Your task to perform on an android device: make emails show in primary in the gmail app Image 0: 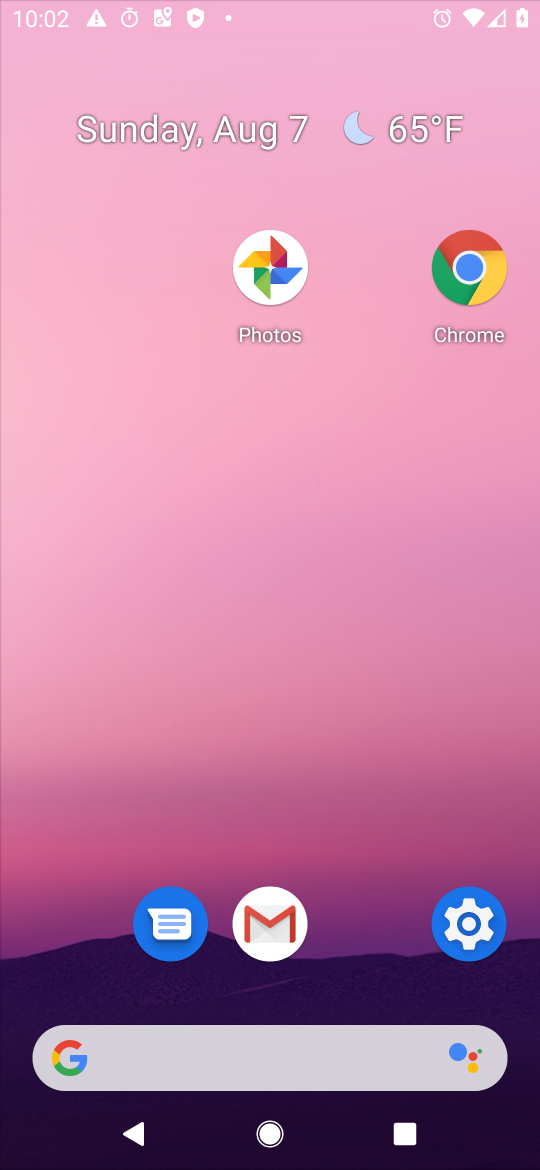
Step 0: press home button
Your task to perform on an android device: make emails show in primary in the gmail app Image 1: 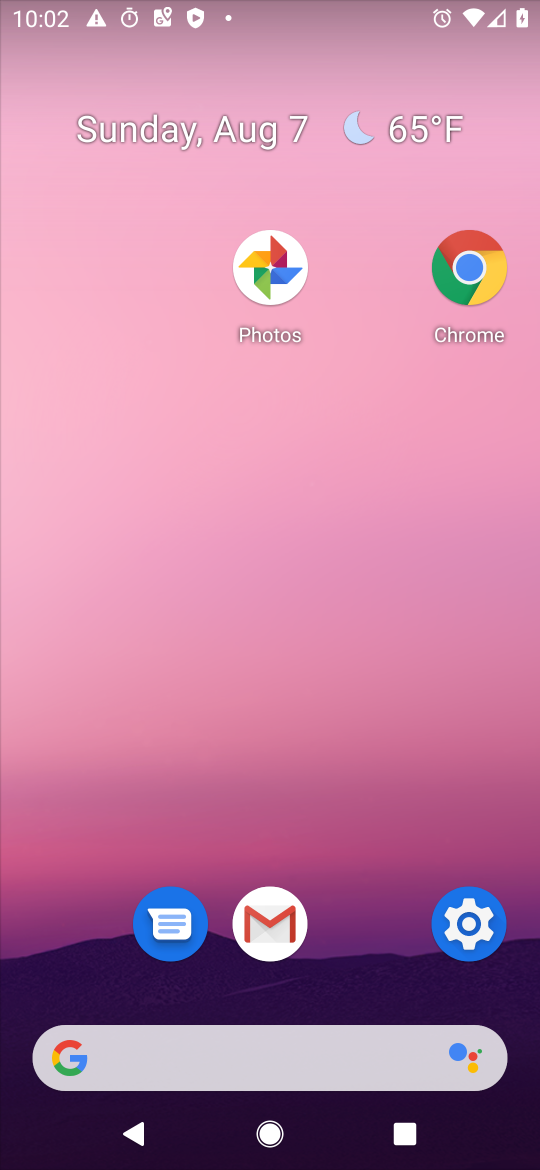
Step 1: click (268, 905)
Your task to perform on an android device: make emails show in primary in the gmail app Image 2: 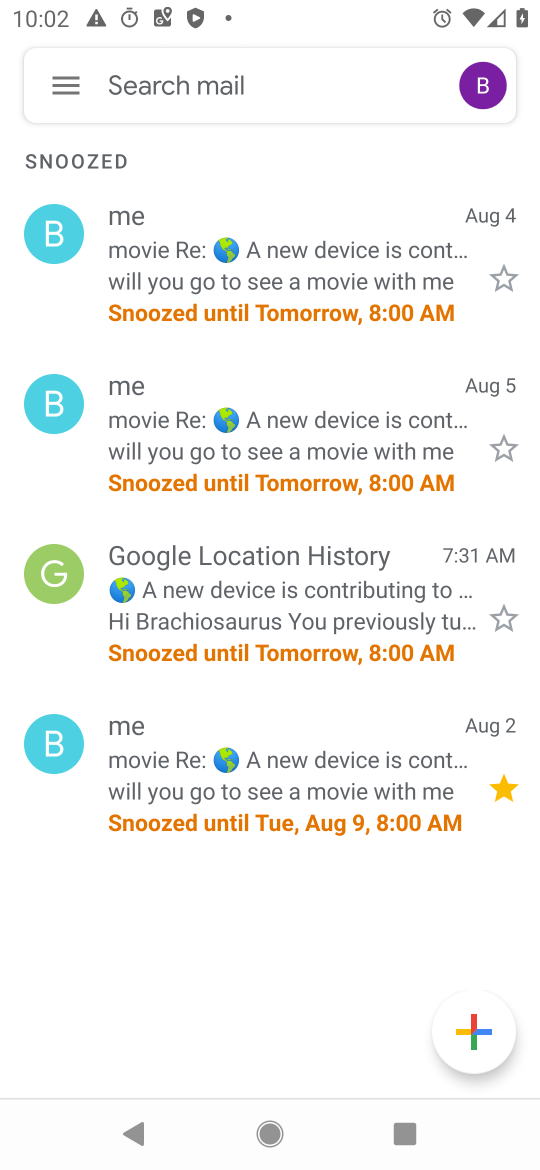
Step 2: click (43, 92)
Your task to perform on an android device: make emails show in primary in the gmail app Image 3: 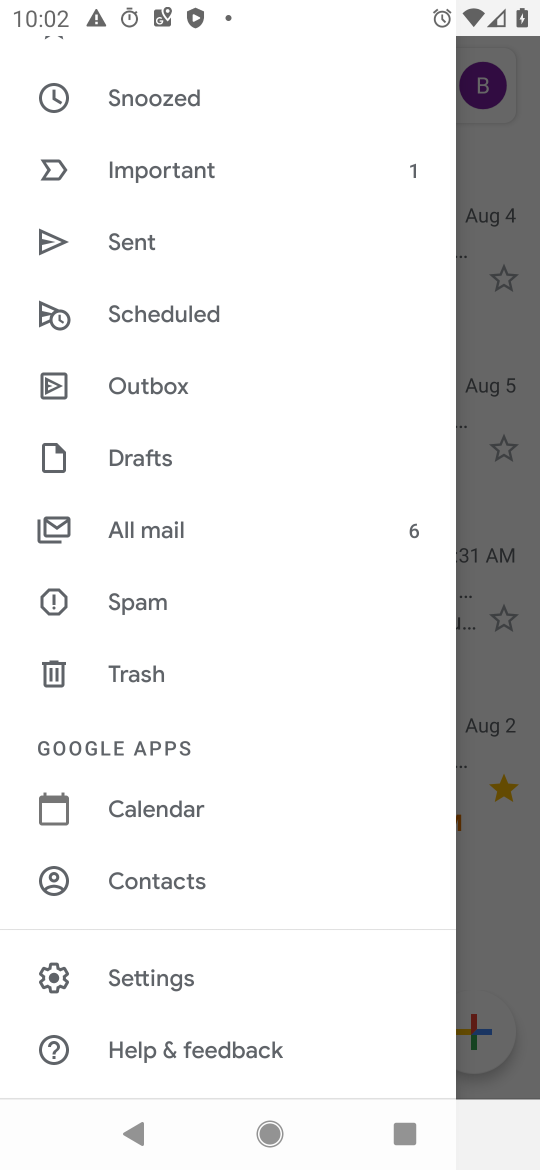
Step 3: click (223, 980)
Your task to perform on an android device: make emails show in primary in the gmail app Image 4: 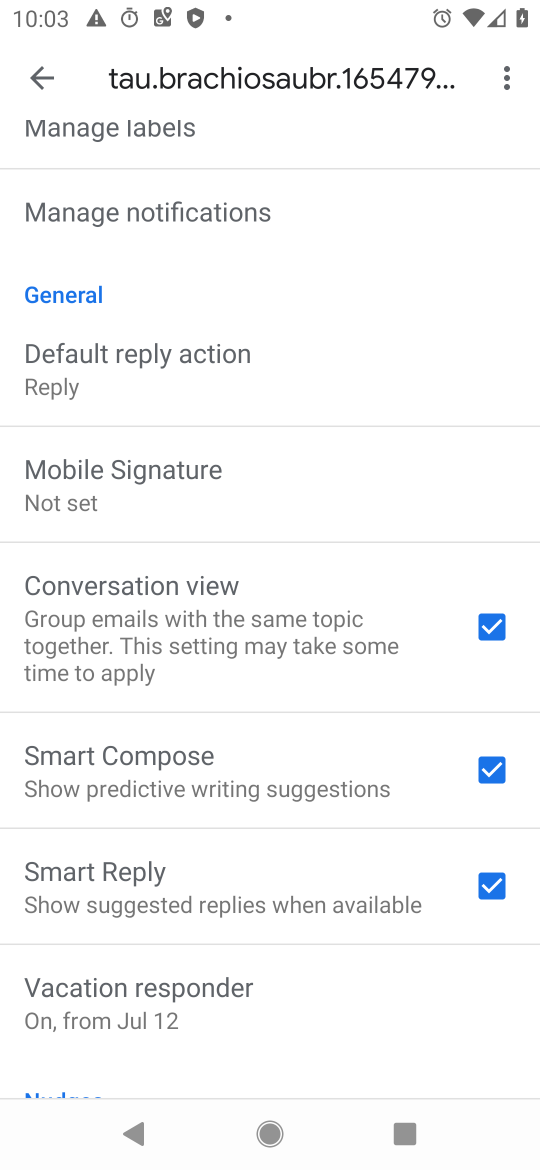
Step 4: task complete